Your task to perform on an android device: show emergency info Image 0: 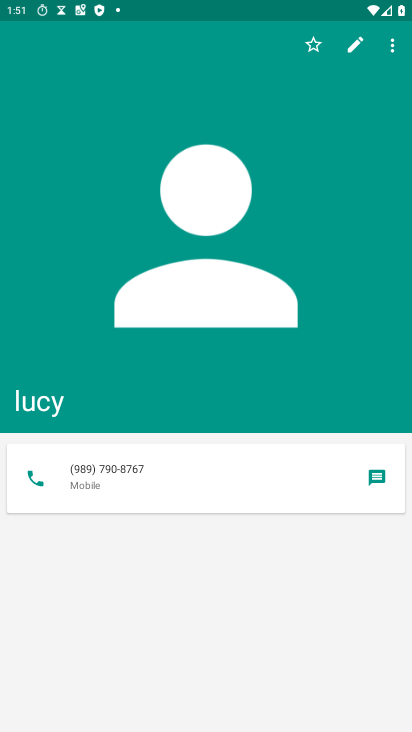
Step 0: press home button
Your task to perform on an android device: show emergency info Image 1: 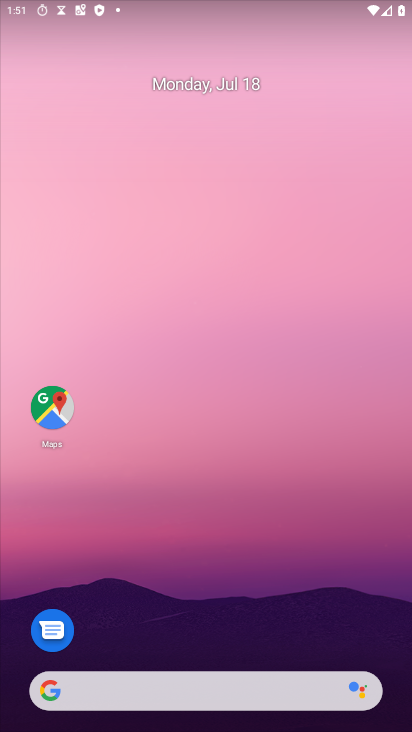
Step 1: drag from (316, 600) to (338, 36)
Your task to perform on an android device: show emergency info Image 2: 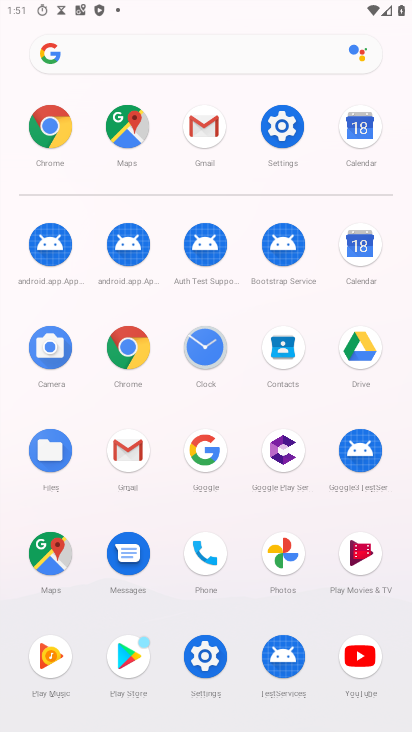
Step 2: click (300, 126)
Your task to perform on an android device: show emergency info Image 3: 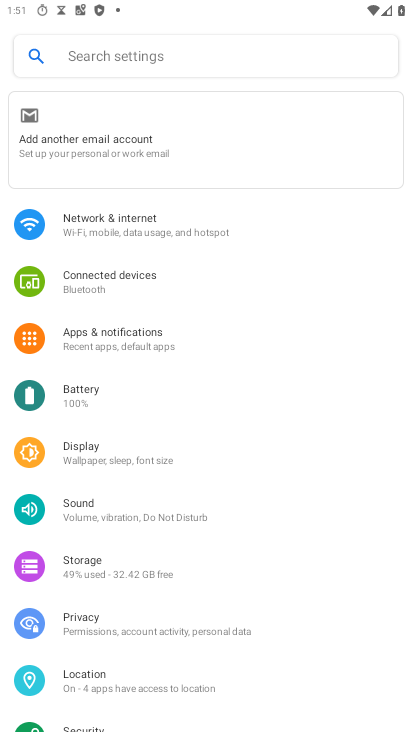
Step 3: drag from (197, 685) to (194, 6)
Your task to perform on an android device: show emergency info Image 4: 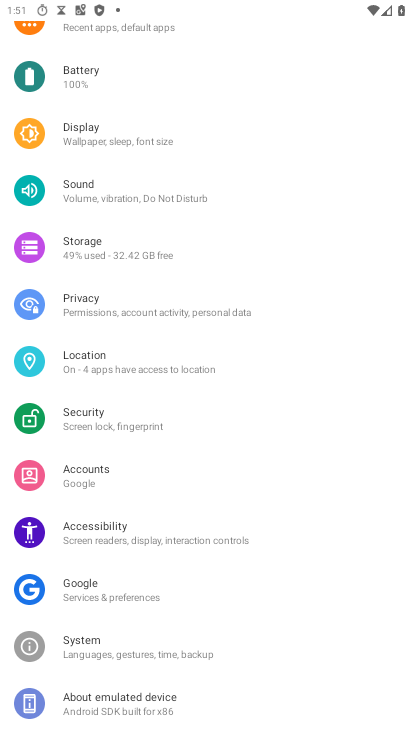
Step 4: click (196, 706)
Your task to perform on an android device: show emergency info Image 5: 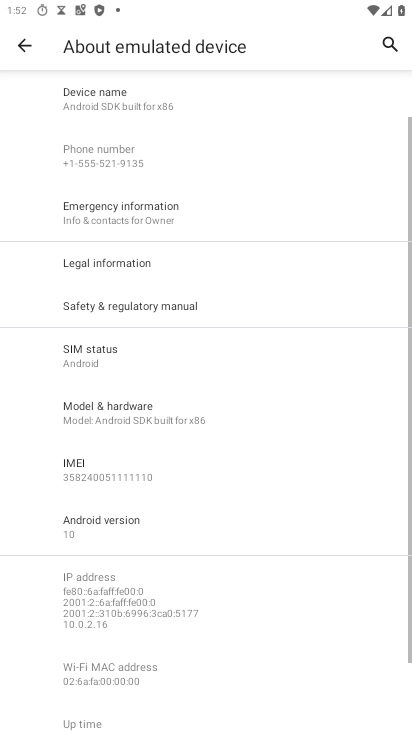
Step 5: click (156, 214)
Your task to perform on an android device: show emergency info Image 6: 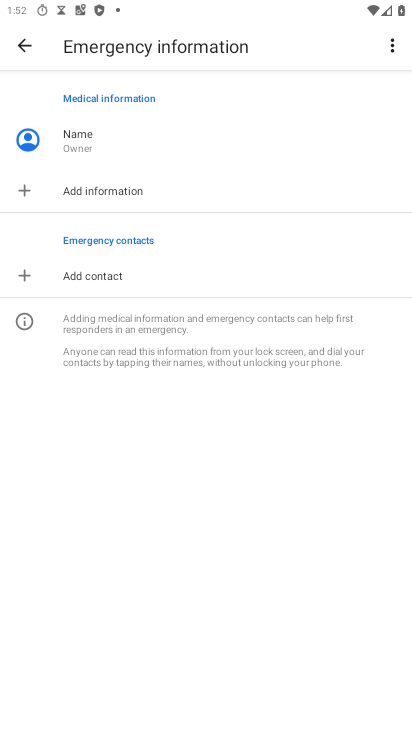
Step 6: task complete